Your task to perform on an android device: add a contact in the contacts app Image 0: 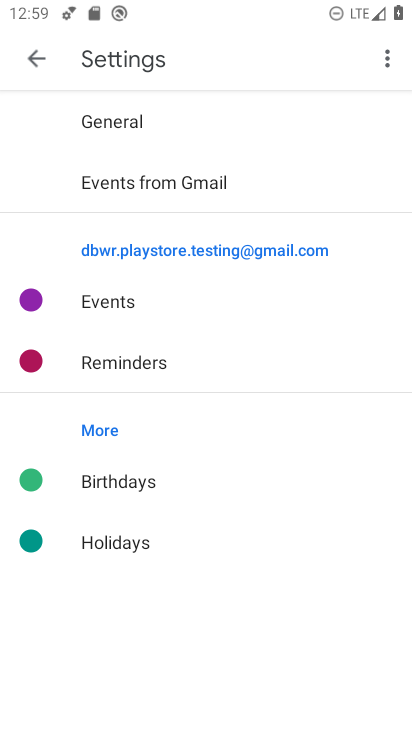
Step 0: press home button
Your task to perform on an android device: add a contact in the contacts app Image 1: 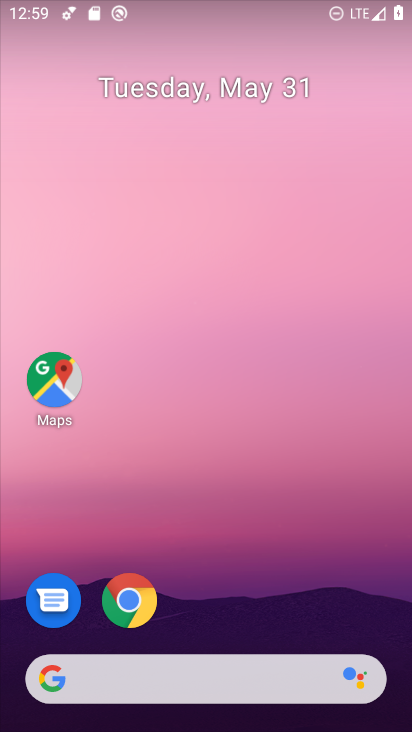
Step 1: drag from (209, 665) to (176, 9)
Your task to perform on an android device: add a contact in the contacts app Image 2: 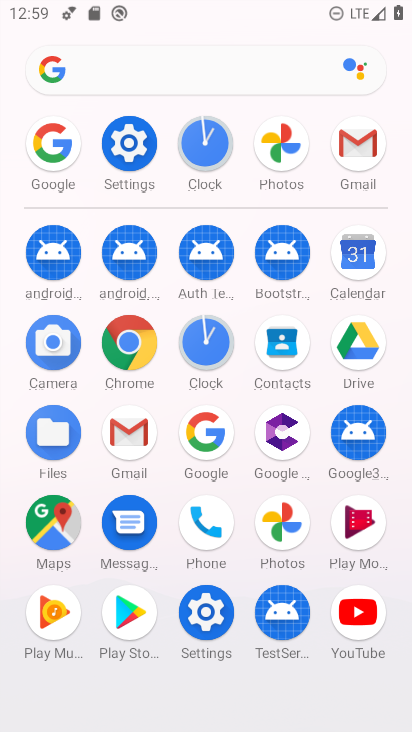
Step 2: click (285, 342)
Your task to perform on an android device: add a contact in the contacts app Image 3: 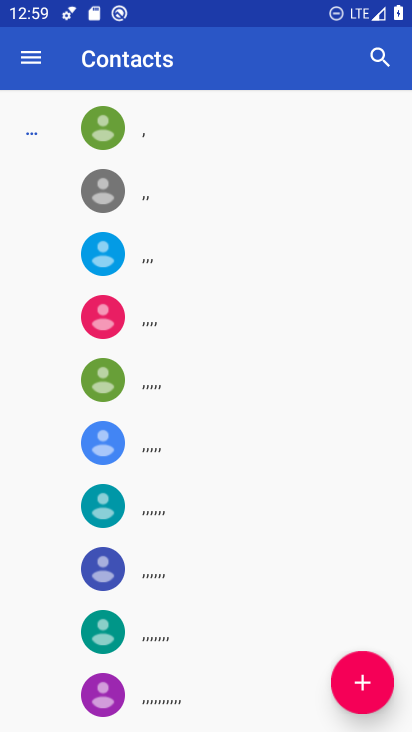
Step 3: click (364, 676)
Your task to perform on an android device: add a contact in the contacts app Image 4: 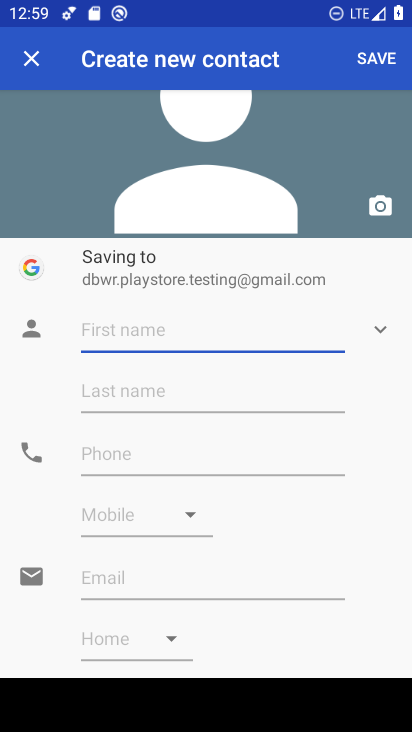
Step 4: type "nnn"
Your task to perform on an android device: add a contact in the contacts app Image 5: 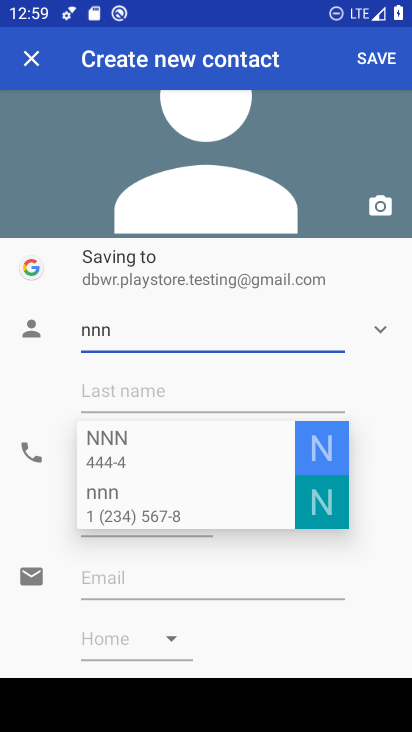
Step 5: click (129, 454)
Your task to perform on an android device: add a contact in the contacts app Image 6: 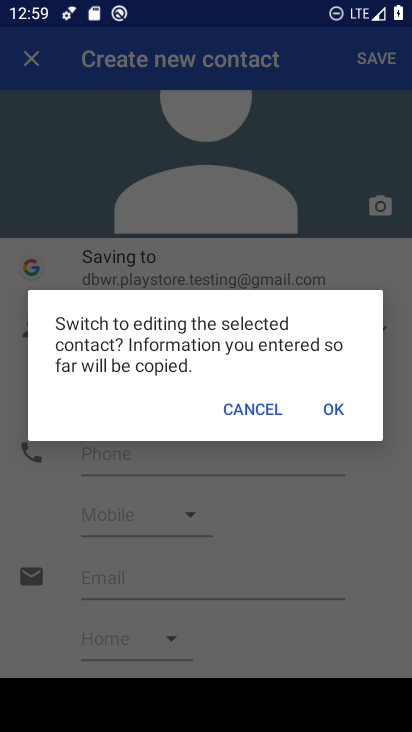
Step 6: click (261, 401)
Your task to perform on an android device: add a contact in the contacts app Image 7: 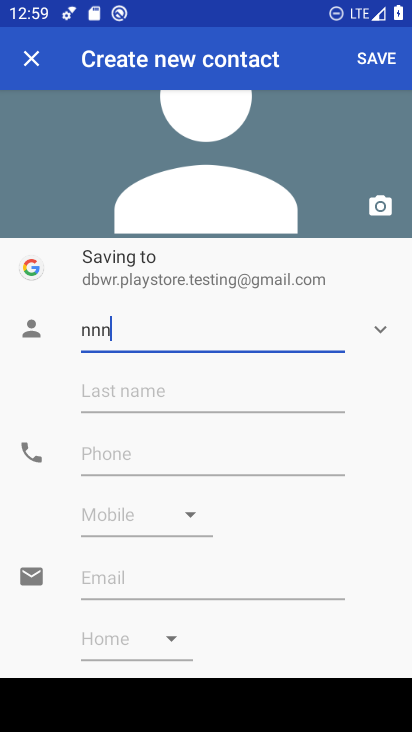
Step 7: type "sss"
Your task to perform on an android device: add a contact in the contacts app Image 8: 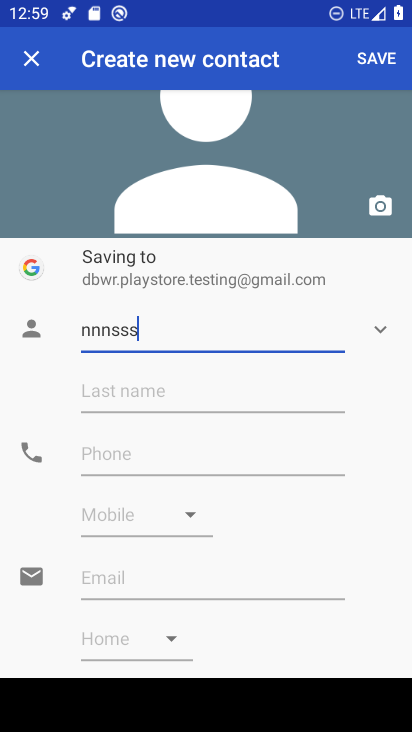
Step 8: click (206, 455)
Your task to perform on an android device: add a contact in the contacts app Image 9: 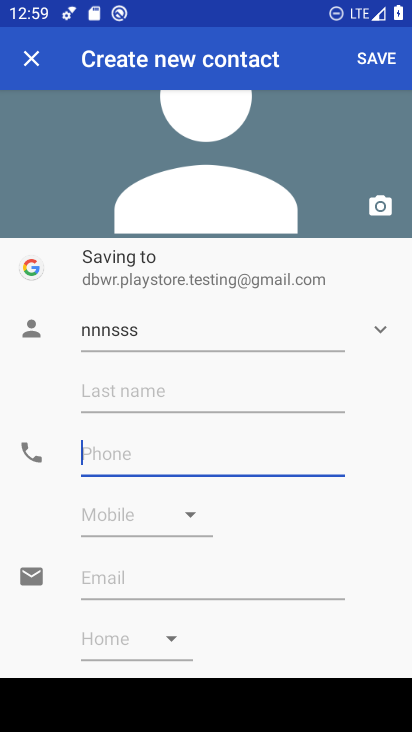
Step 9: type "88888"
Your task to perform on an android device: add a contact in the contacts app Image 10: 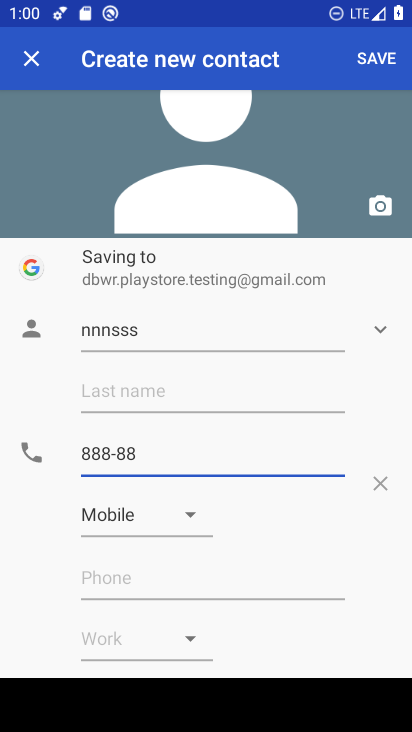
Step 10: click (377, 53)
Your task to perform on an android device: add a contact in the contacts app Image 11: 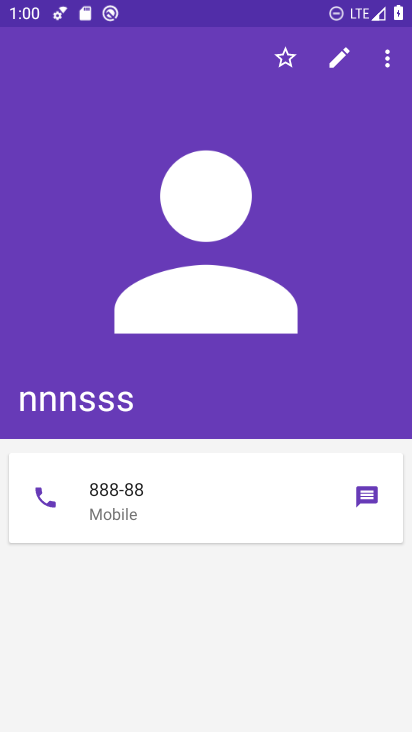
Step 11: task complete